Your task to perform on an android device: see sites visited before in the chrome app Image 0: 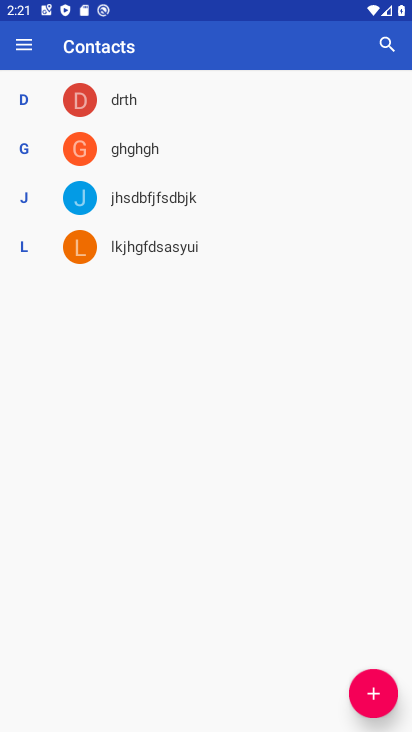
Step 0: press home button
Your task to perform on an android device: see sites visited before in the chrome app Image 1: 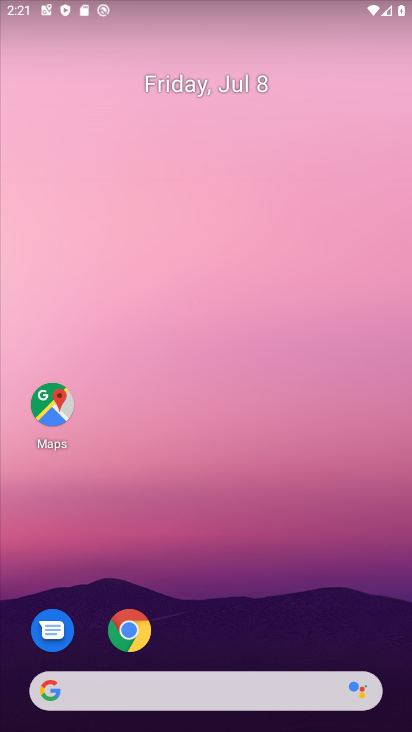
Step 1: click (134, 608)
Your task to perform on an android device: see sites visited before in the chrome app Image 2: 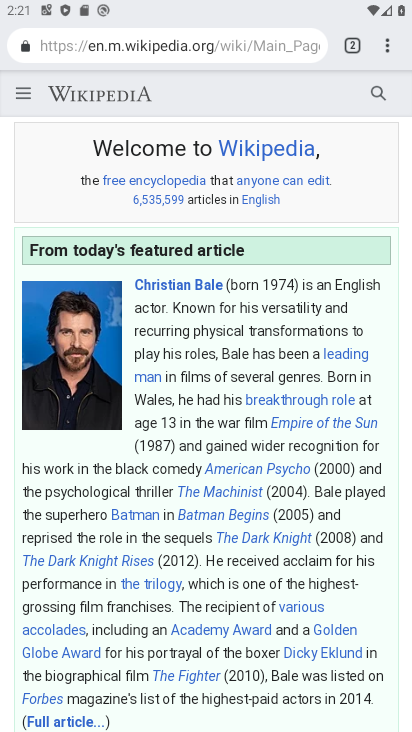
Step 2: click (385, 43)
Your task to perform on an android device: see sites visited before in the chrome app Image 3: 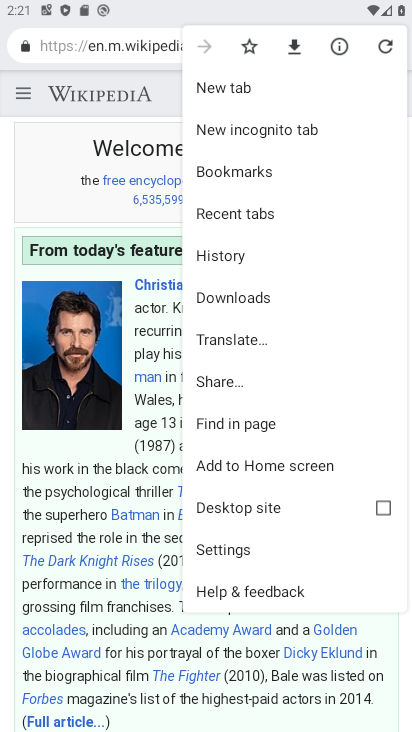
Step 3: click (272, 206)
Your task to perform on an android device: see sites visited before in the chrome app Image 4: 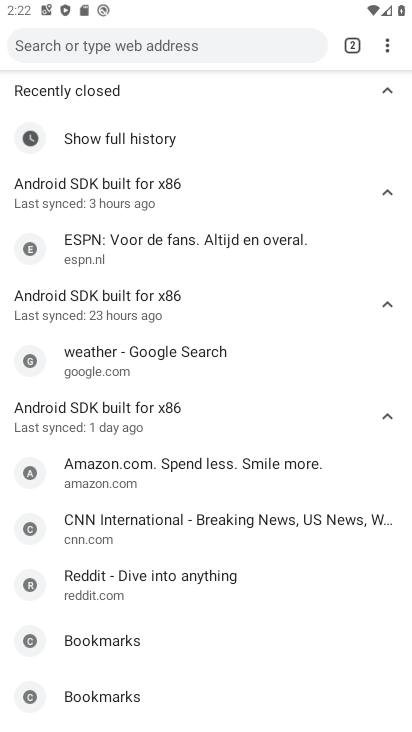
Step 4: task complete